Your task to perform on an android device: check battery use Image 0: 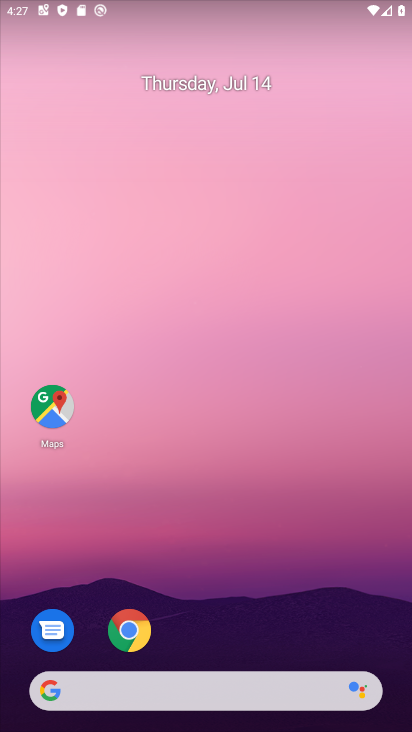
Step 0: drag from (249, 650) to (293, 4)
Your task to perform on an android device: check battery use Image 1: 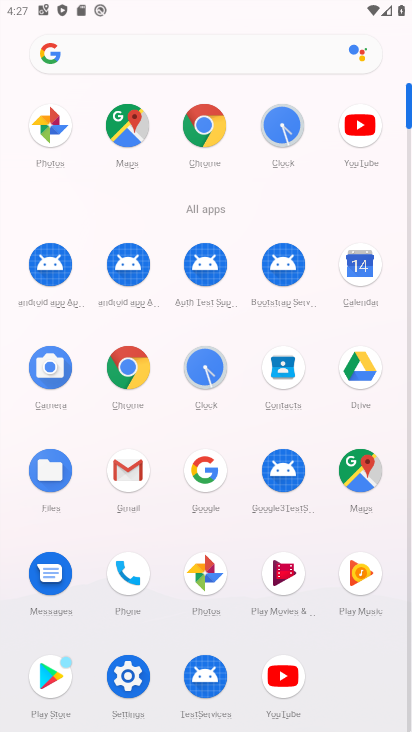
Step 1: click (116, 672)
Your task to perform on an android device: check battery use Image 2: 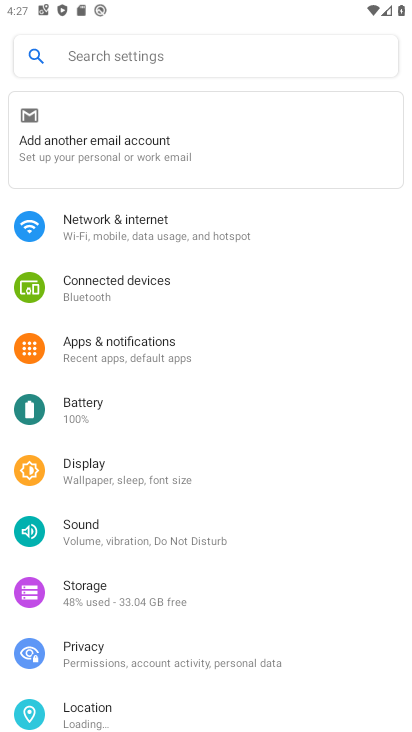
Step 2: click (98, 416)
Your task to perform on an android device: check battery use Image 3: 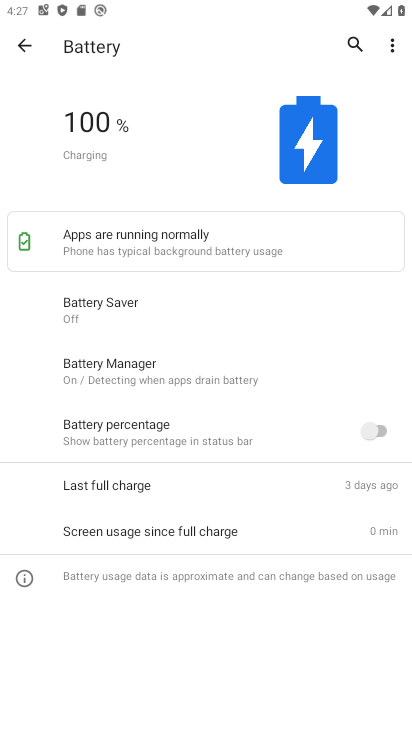
Step 3: click (385, 38)
Your task to perform on an android device: check battery use Image 4: 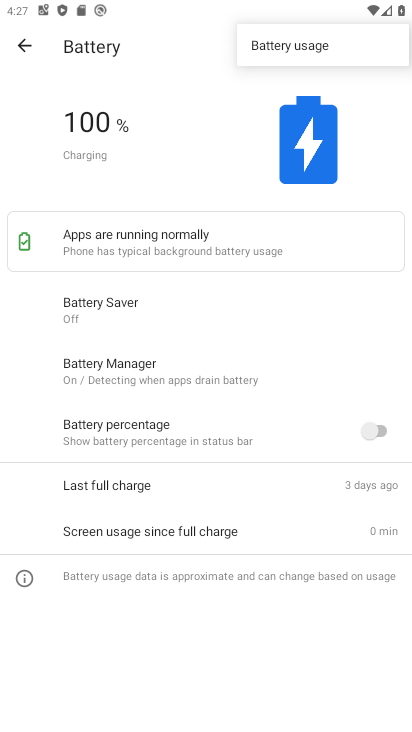
Step 4: click (319, 40)
Your task to perform on an android device: check battery use Image 5: 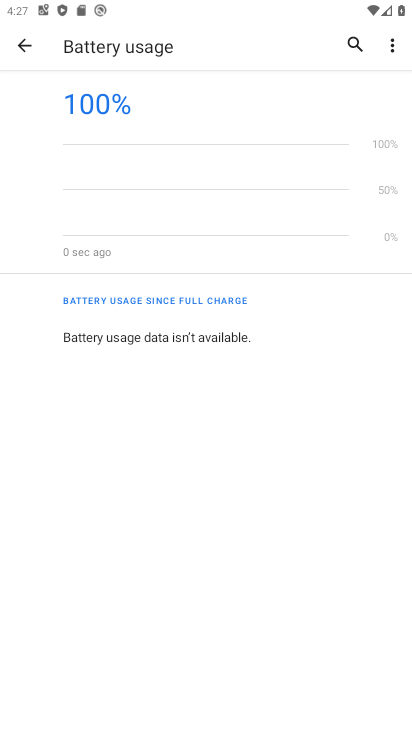
Step 5: task complete